Your task to perform on an android device: open chrome privacy settings Image 0: 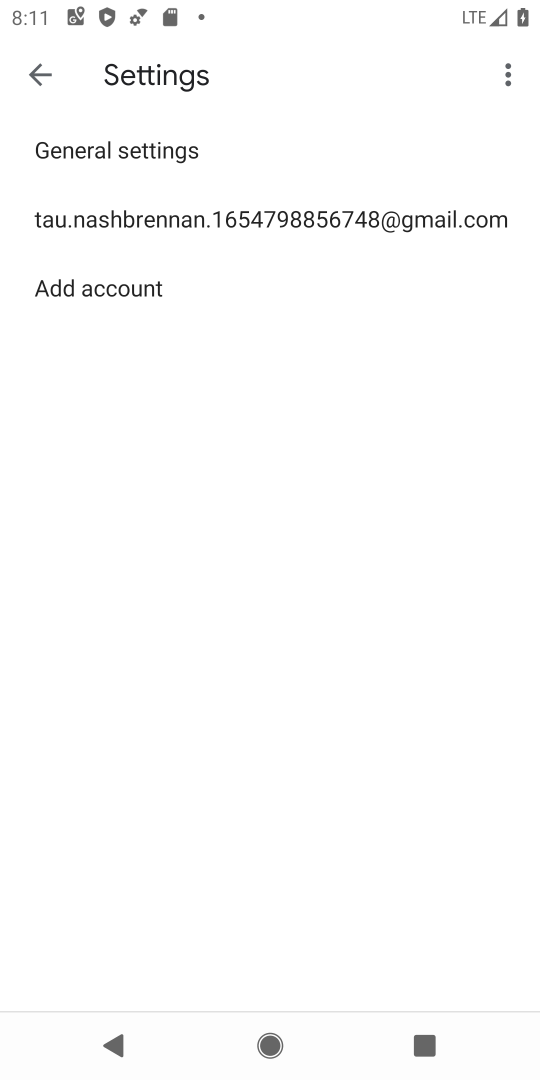
Step 0: press home button
Your task to perform on an android device: open chrome privacy settings Image 1: 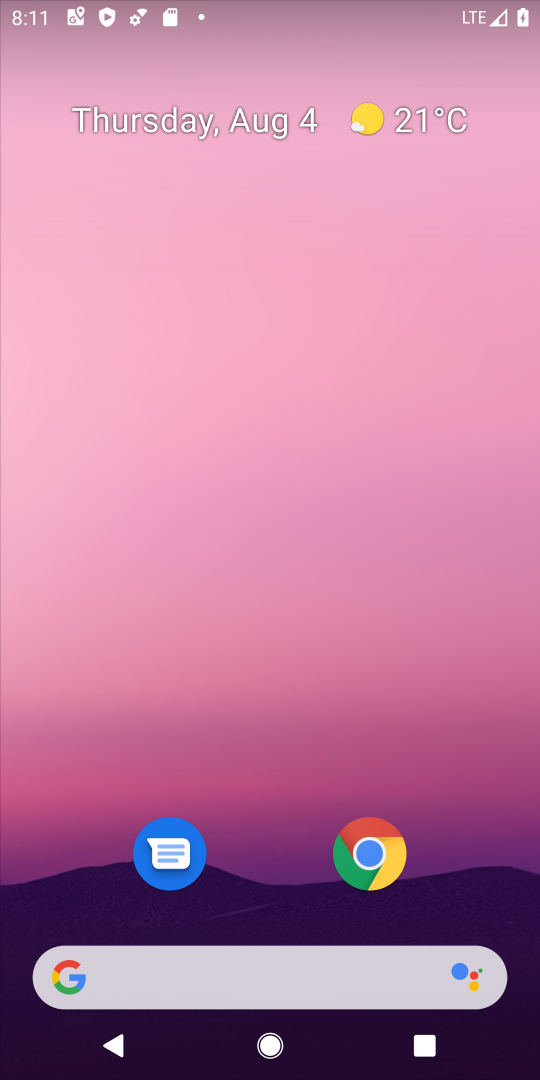
Step 1: drag from (272, 818) to (272, 354)
Your task to perform on an android device: open chrome privacy settings Image 2: 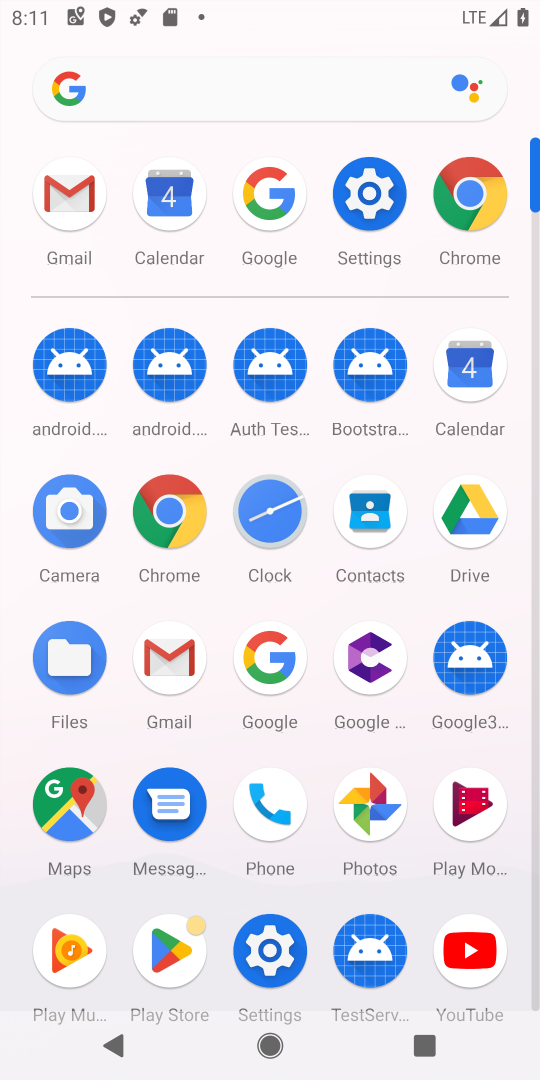
Step 2: click (483, 212)
Your task to perform on an android device: open chrome privacy settings Image 3: 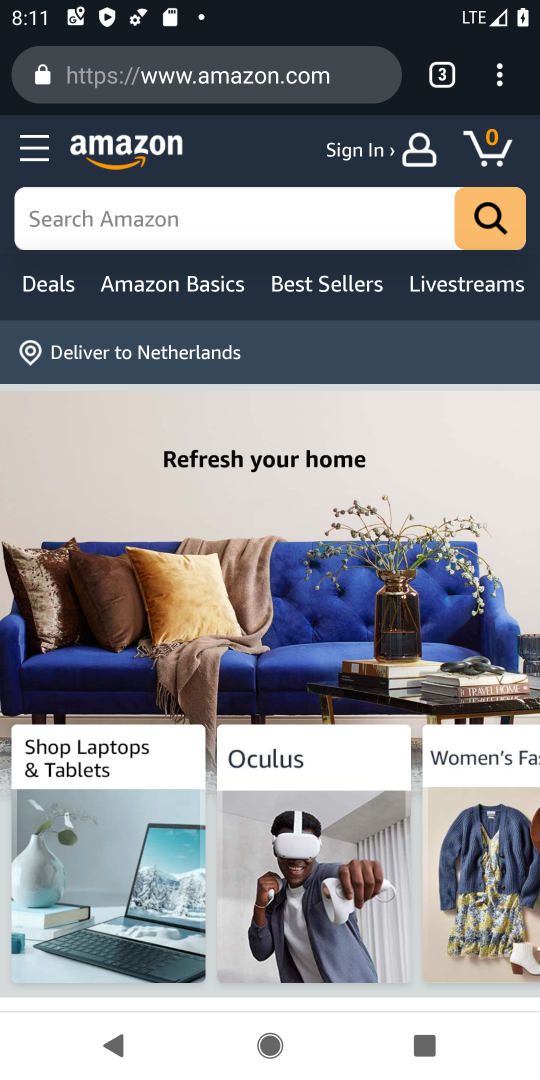
Step 3: click (499, 69)
Your task to perform on an android device: open chrome privacy settings Image 4: 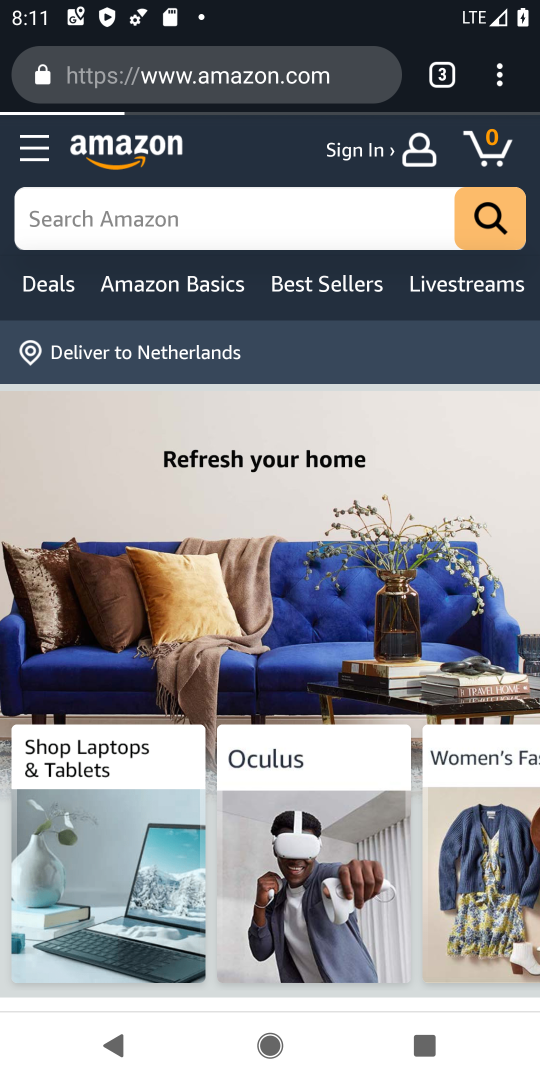
Step 4: click (499, 69)
Your task to perform on an android device: open chrome privacy settings Image 5: 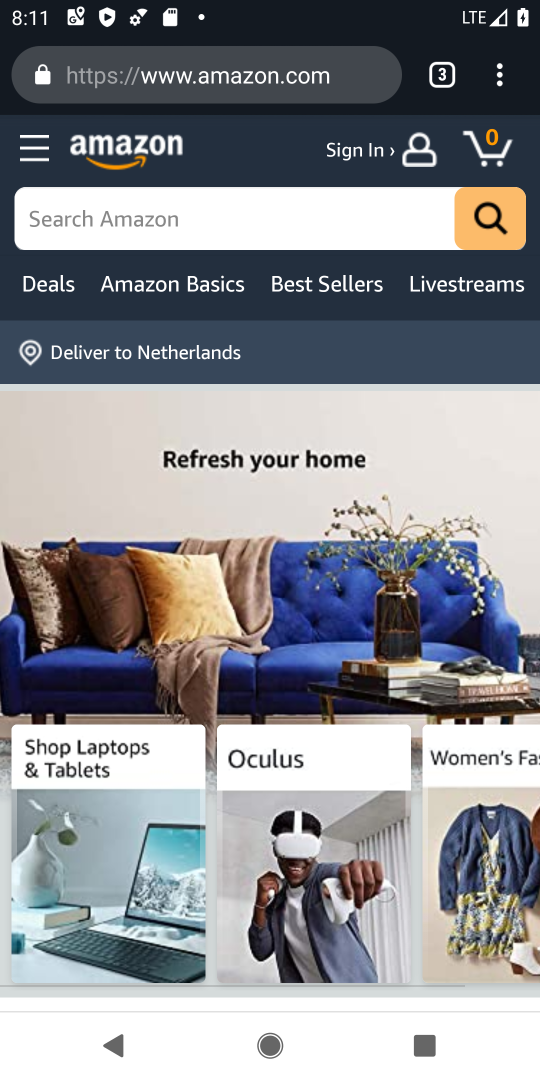
Step 5: click (502, 74)
Your task to perform on an android device: open chrome privacy settings Image 6: 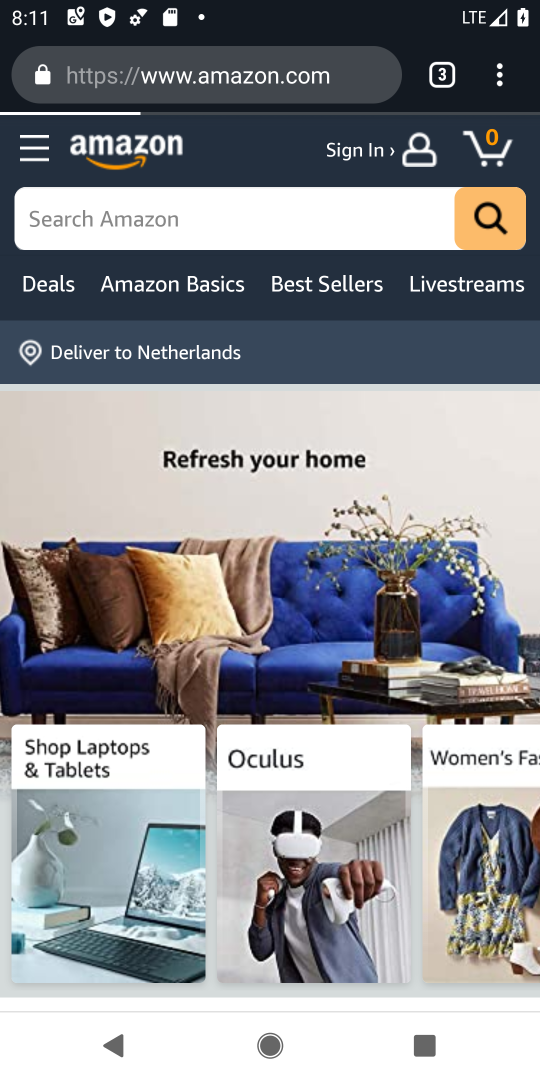
Step 6: click (502, 74)
Your task to perform on an android device: open chrome privacy settings Image 7: 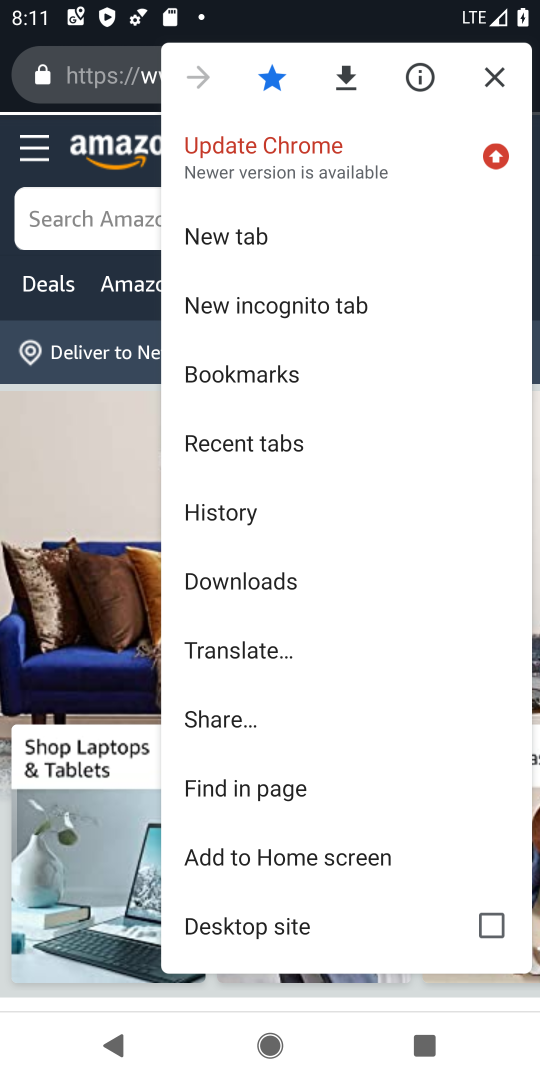
Step 7: drag from (231, 867) to (293, 418)
Your task to perform on an android device: open chrome privacy settings Image 8: 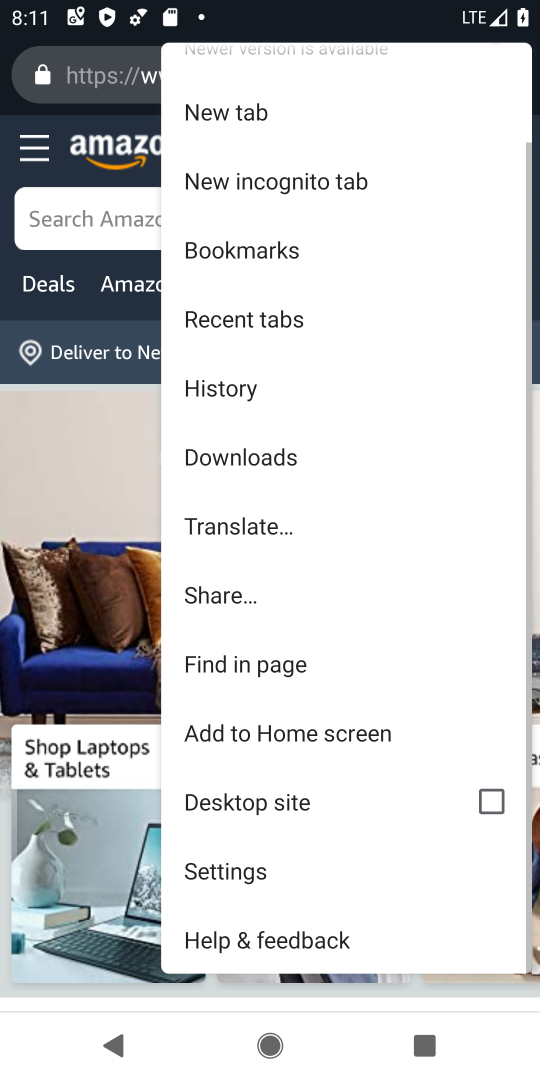
Step 8: click (222, 882)
Your task to perform on an android device: open chrome privacy settings Image 9: 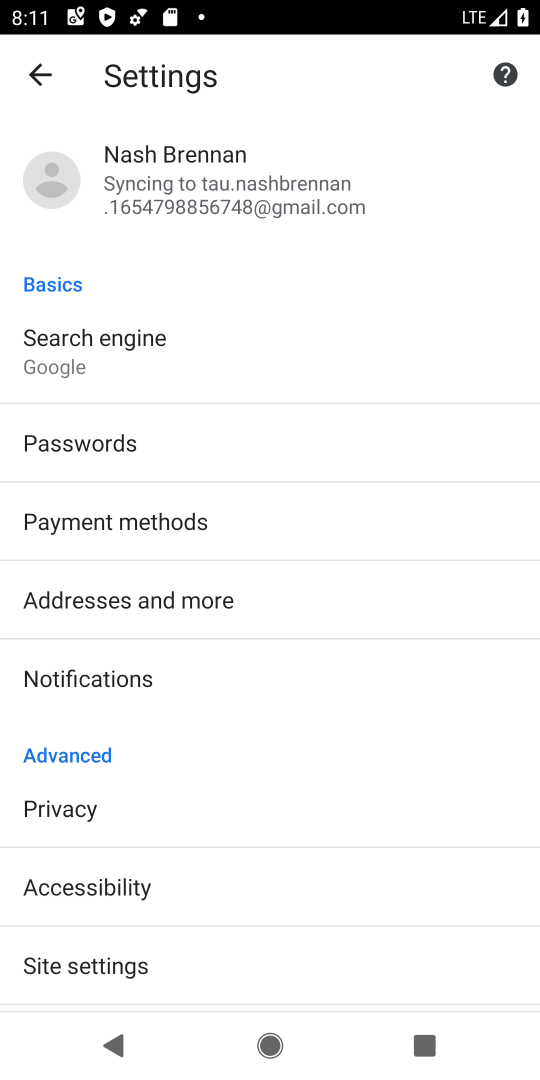
Step 9: click (54, 813)
Your task to perform on an android device: open chrome privacy settings Image 10: 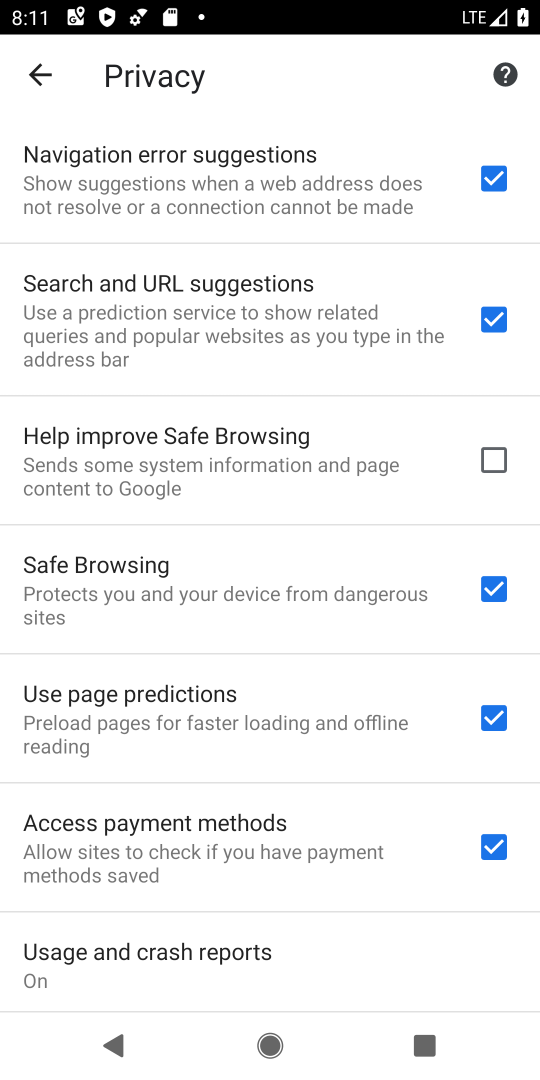
Step 10: task complete